Your task to perform on an android device: change the clock style Image 0: 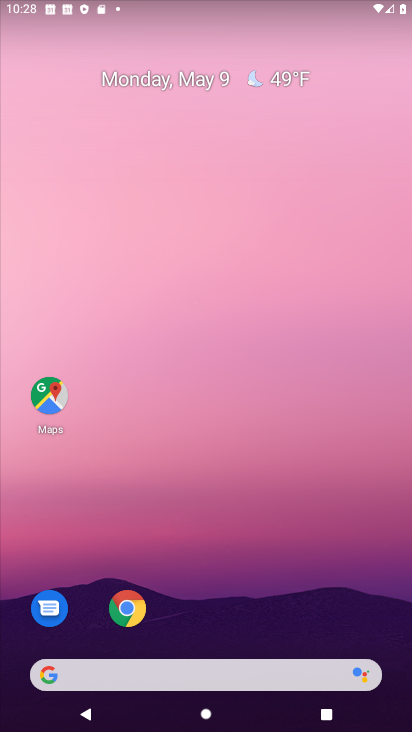
Step 0: drag from (271, 614) to (188, 93)
Your task to perform on an android device: change the clock style Image 1: 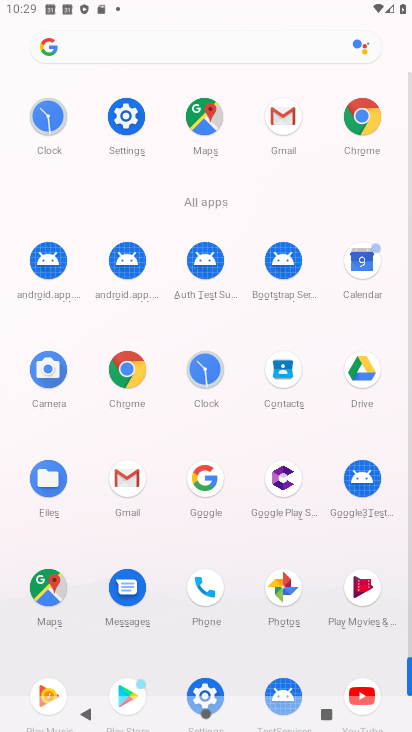
Step 1: click (212, 379)
Your task to perform on an android device: change the clock style Image 2: 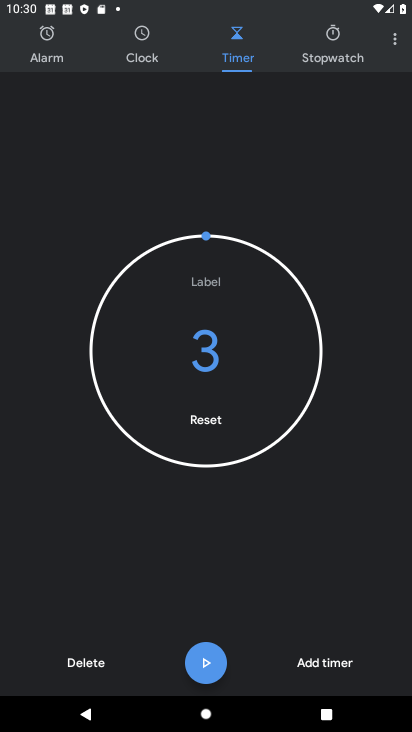
Step 2: drag from (389, 34) to (291, 63)
Your task to perform on an android device: change the clock style Image 3: 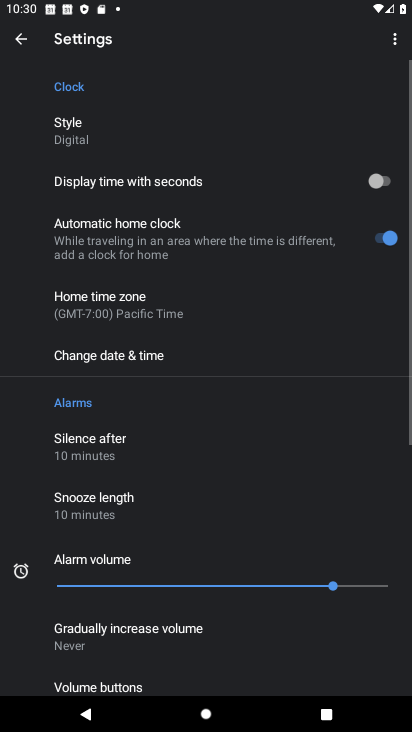
Step 3: click (60, 133)
Your task to perform on an android device: change the clock style Image 4: 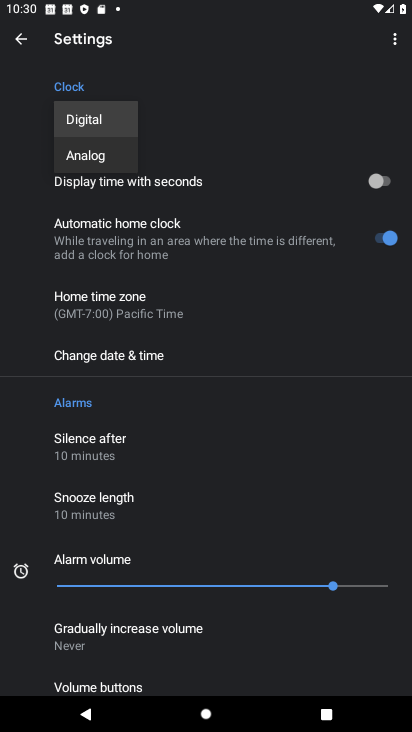
Step 4: click (100, 155)
Your task to perform on an android device: change the clock style Image 5: 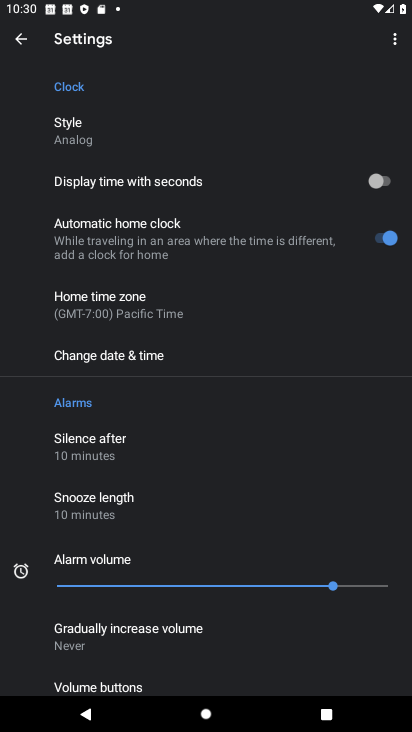
Step 5: task complete